Your task to perform on an android device: install app "LinkedIn" Image 0: 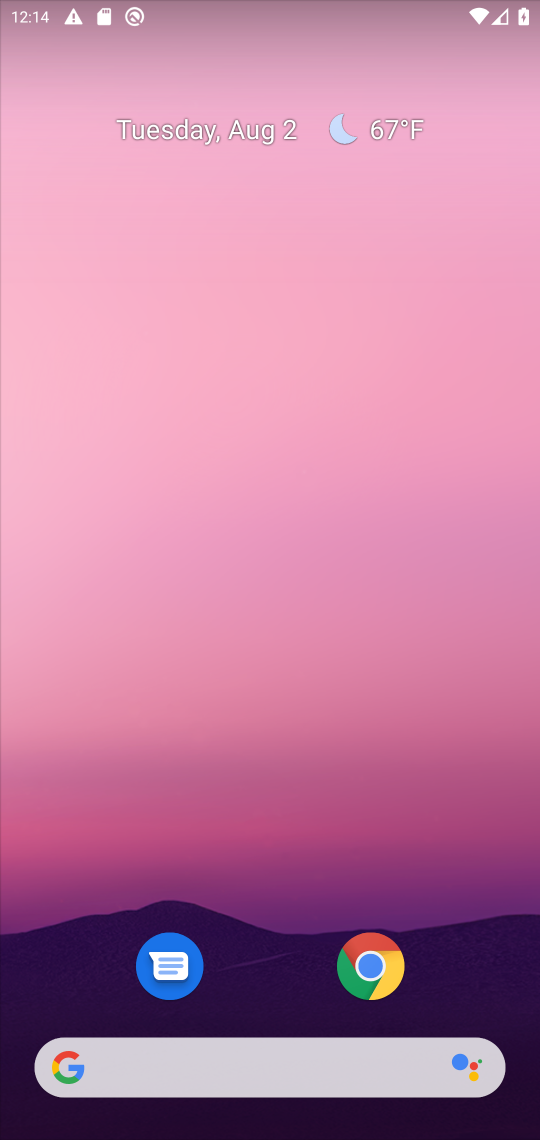
Step 0: press home button
Your task to perform on an android device: install app "LinkedIn" Image 1: 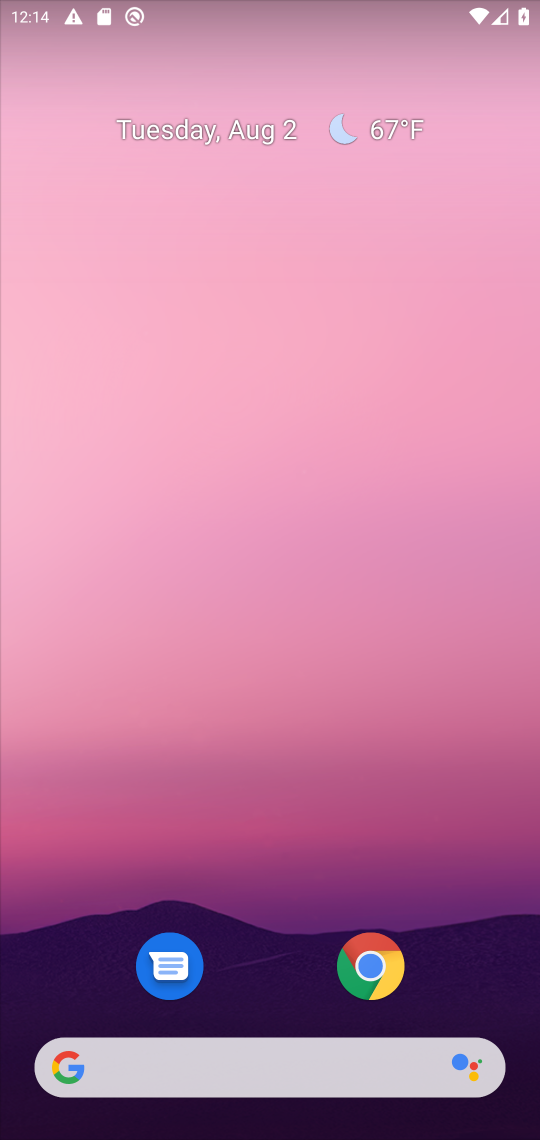
Step 1: drag from (463, 830) to (462, 105)
Your task to perform on an android device: install app "LinkedIn" Image 2: 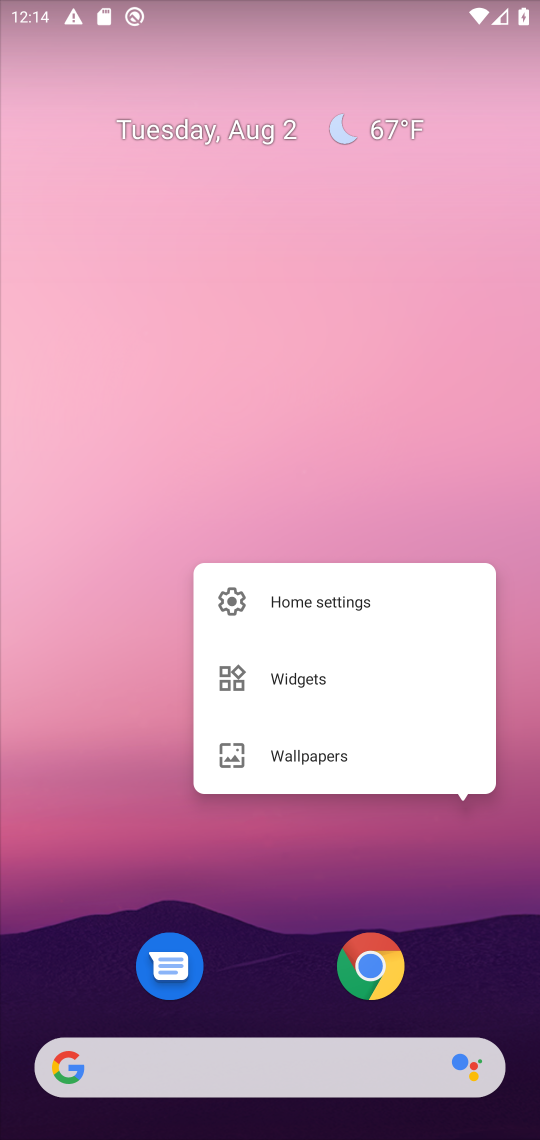
Step 2: click (413, 425)
Your task to perform on an android device: install app "LinkedIn" Image 3: 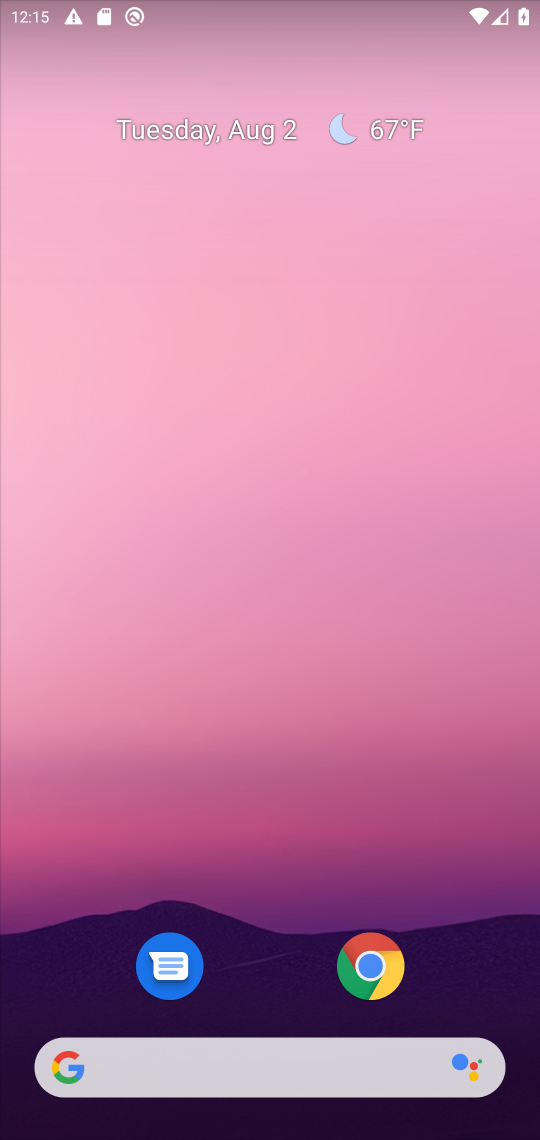
Step 3: drag from (288, 977) to (243, 90)
Your task to perform on an android device: install app "LinkedIn" Image 4: 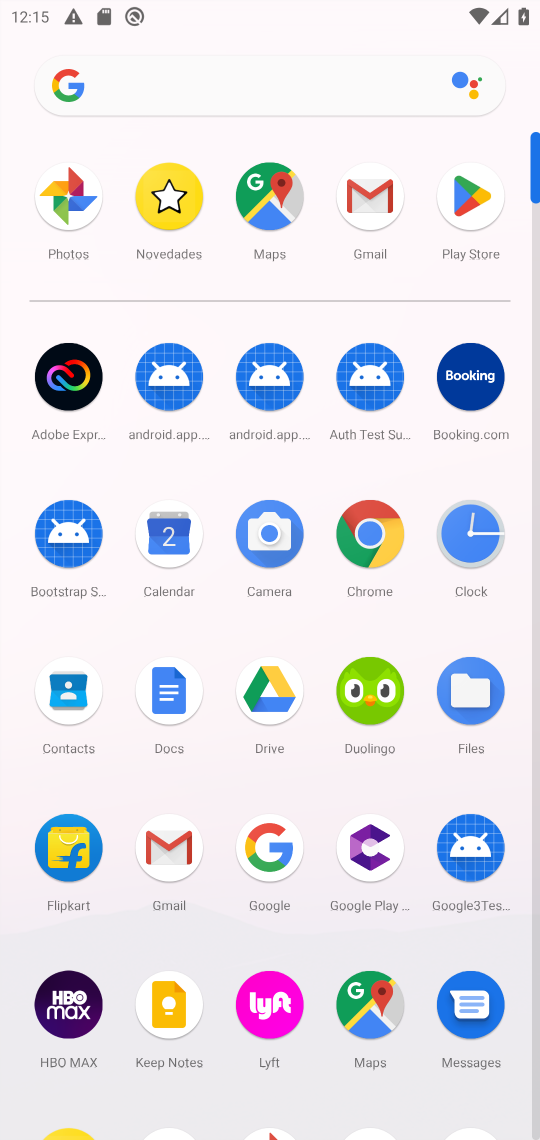
Step 4: click (480, 208)
Your task to perform on an android device: install app "LinkedIn" Image 5: 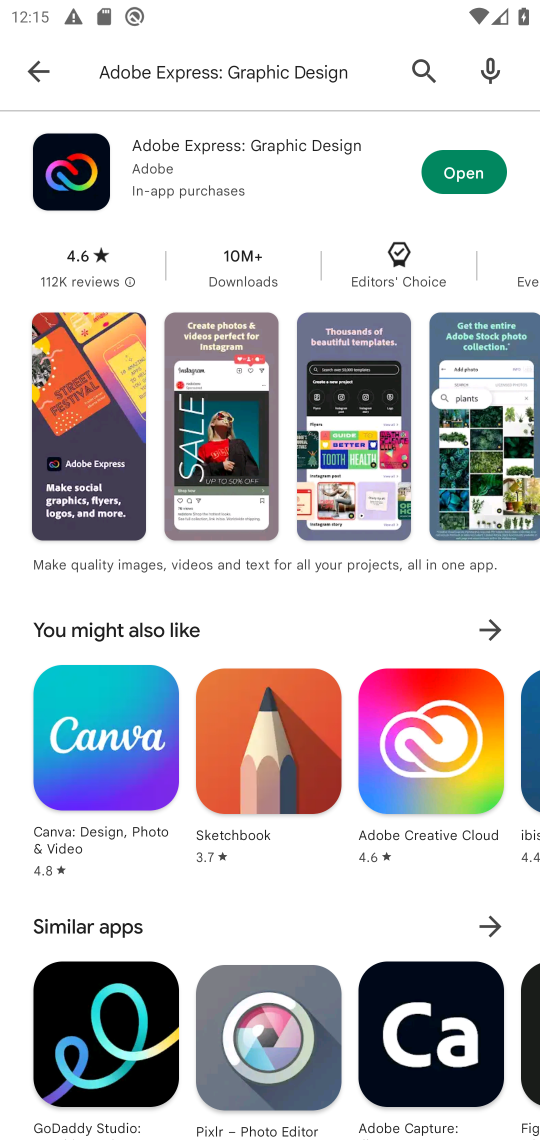
Step 5: click (419, 59)
Your task to perform on an android device: install app "LinkedIn" Image 6: 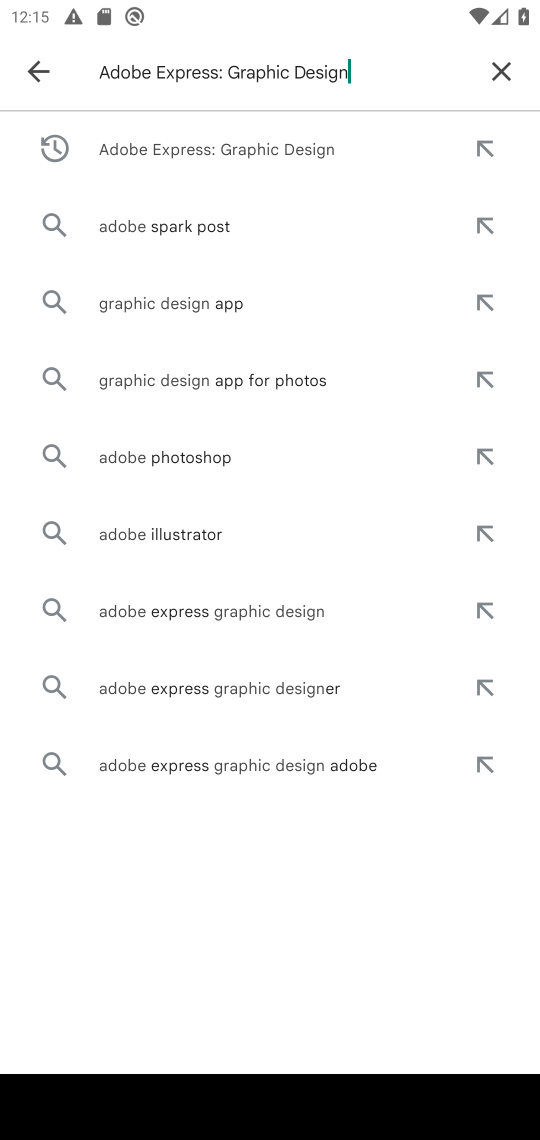
Step 6: click (495, 67)
Your task to perform on an android device: install app "LinkedIn" Image 7: 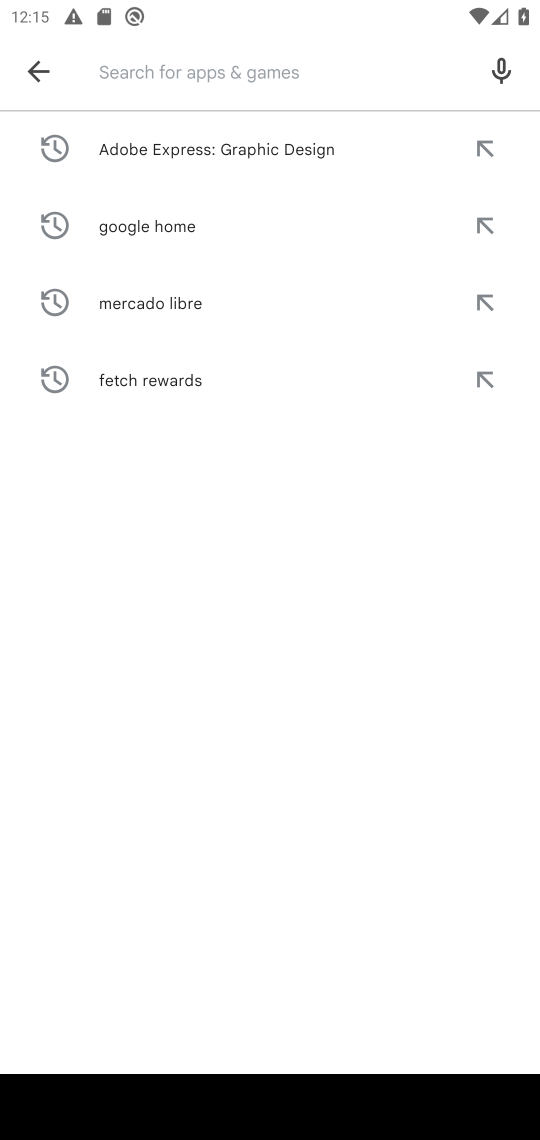
Step 7: type "linkedin"
Your task to perform on an android device: install app "LinkedIn" Image 8: 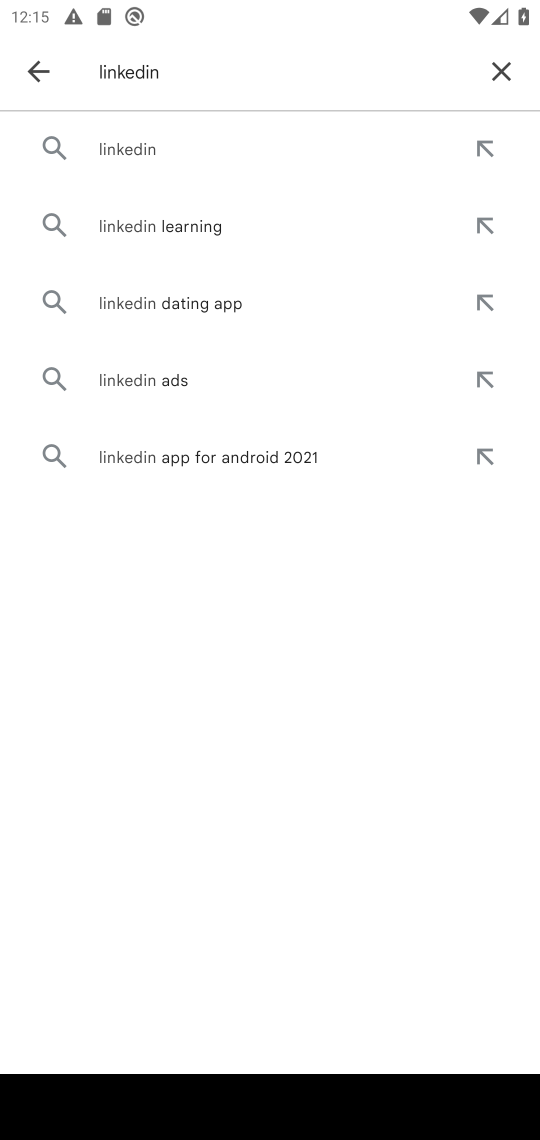
Step 8: click (208, 146)
Your task to perform on an android device: install app "LinkedIn" Image 9: 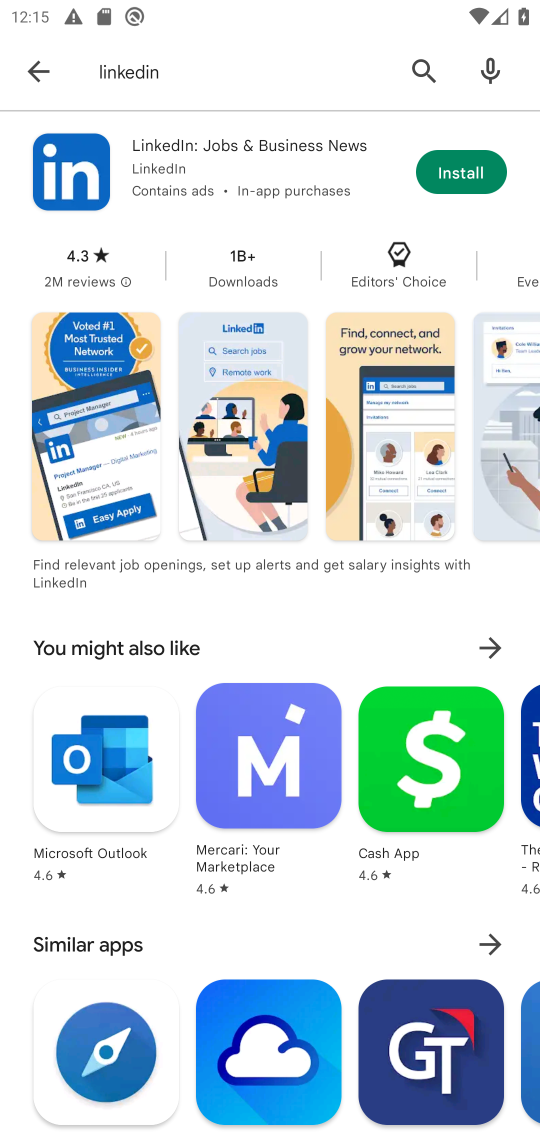
Step 9: click (471, 167)
Your task to perform on an android device: install app "LinkedIn" Image 10: 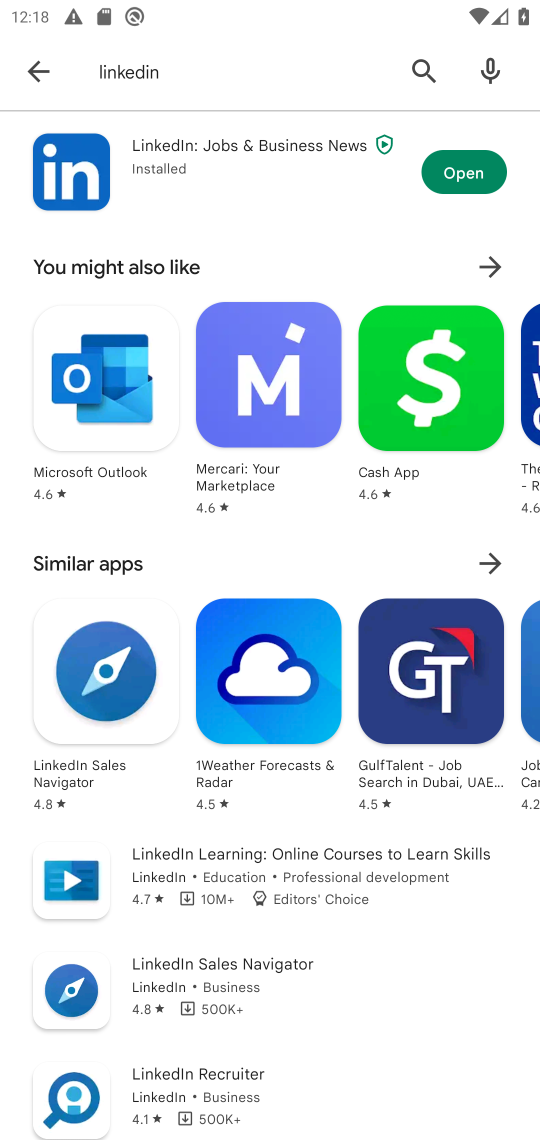
Step 10: task complete